Your task to perform on an android device: stop showing notifications on the lock screen Image 0: 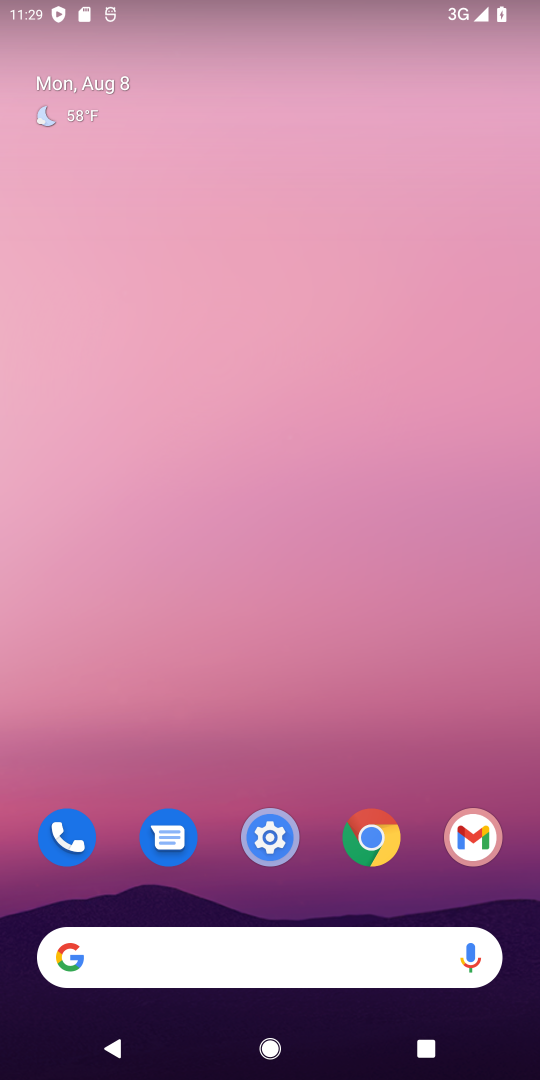
Step 0: click (271, 831)
Your task to perform on an android device: stop showing notifications on the lock screen Image 1: 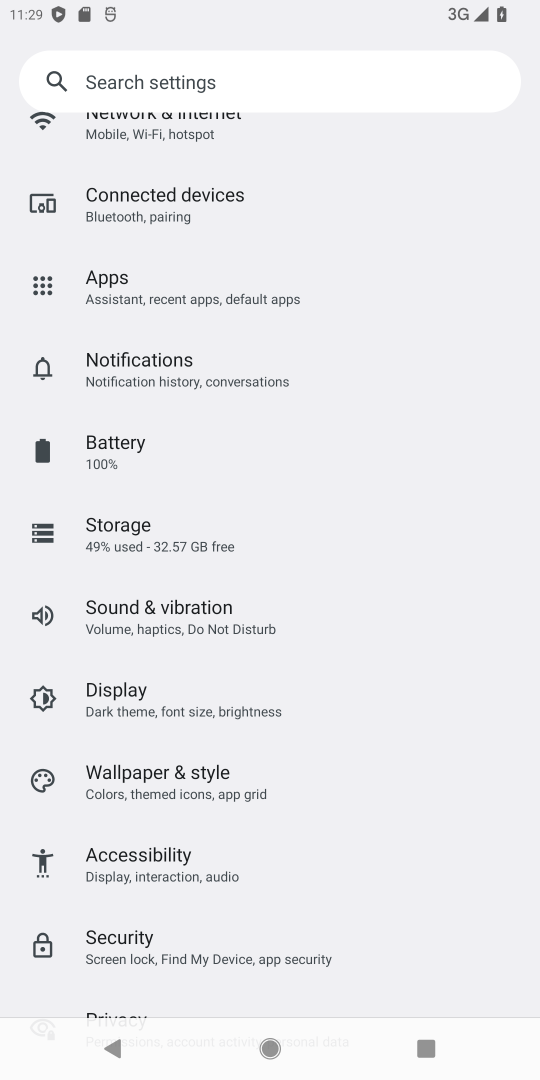
Step 1: click (130, 368)
Your task to perform on an android device: stop showing notifications on the lock screen Image 2: 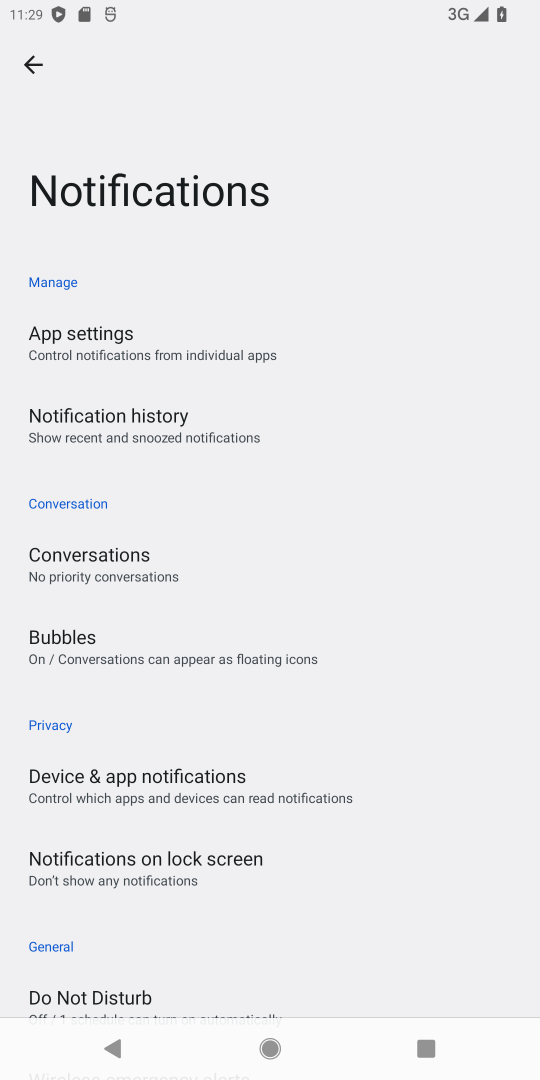
Step 2: click (167, 861)
Your task to perform on an android device: stop showing notifications on the lock screen Image 3: 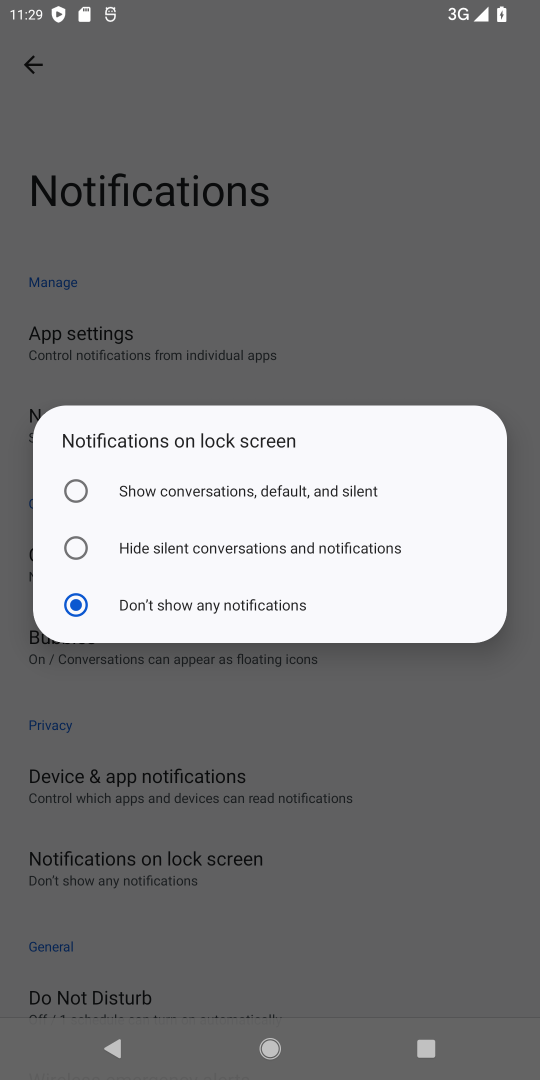
Step 3: task complete